Your task to perform on an android device: add a label to a message in the gmail app Image 0: 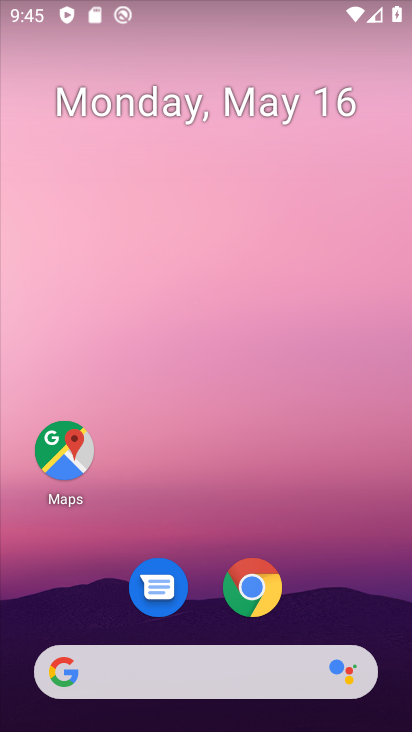
Step 0: drag from (217, 644) to (210, 142)
Your task to perform on an android device: add a label to a message in the gmail app Image 1: 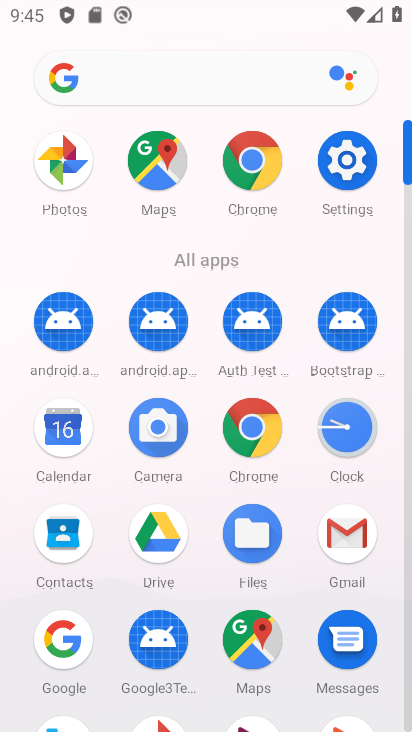
Step 1: click (345, 538)
Your task to perform on an android device: add a label to a message in the gmail app Image 2: 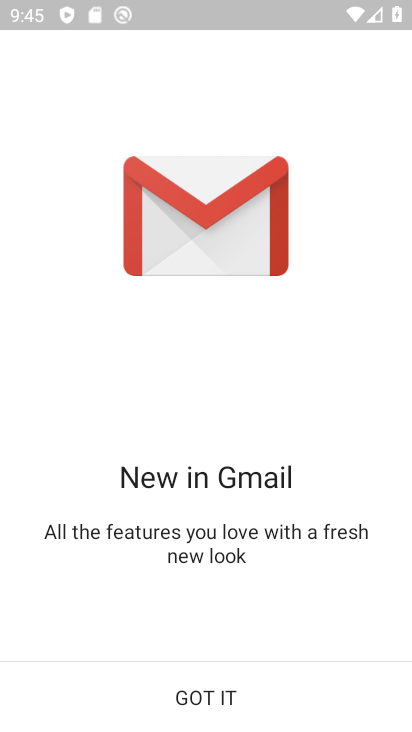
Step 2: click (263, 702)
Your task to perform on an android device: add a label to a message in the gmail app Image 3: 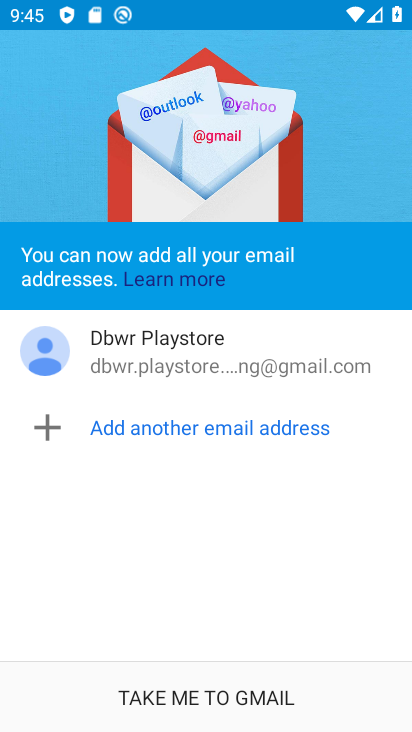
Step 3: click (264, 698)
Your task to perform on an android device: add a label to a message in the gmail app Image 4: 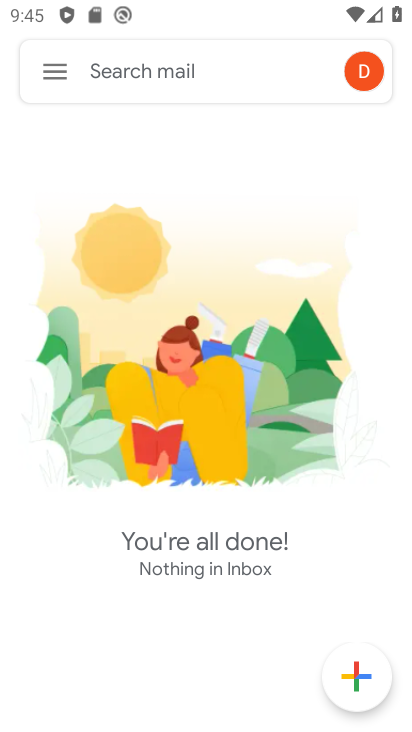
Step 4: task complete